Your task to perform on an android device: Show me popular games on the Play Store Image 0: 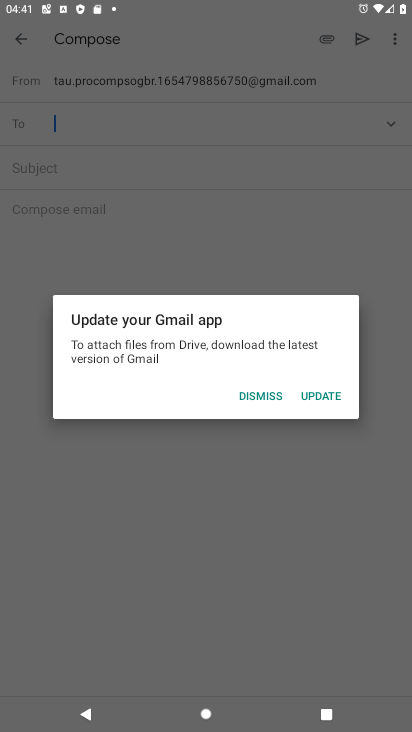
Step 0: press home button
Your task to perform on an android device: Show me popular games on the Play Store Image 1: 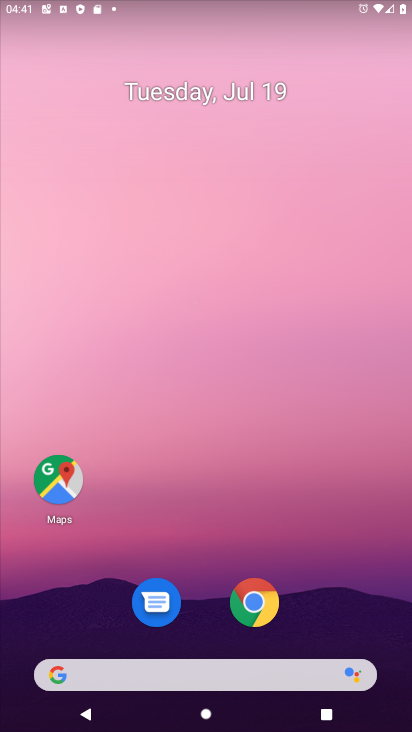
Step 1: drag from (208, 618) to (267, 159)
Your task to perform on an android device: Show me popular games on the Play Store Image 2: 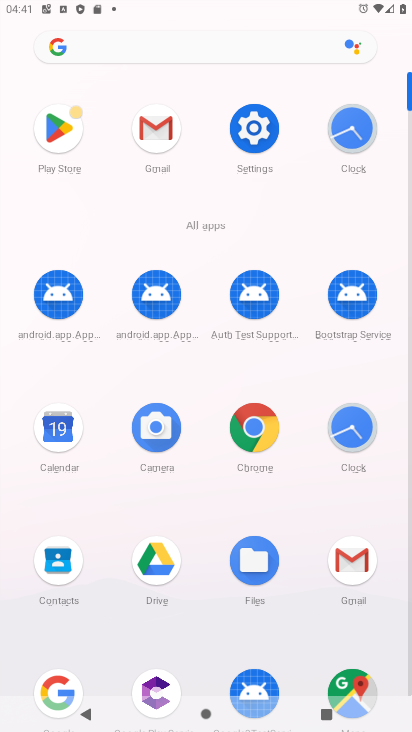
Step 2: click (81, 130)
Your task to perform on an android device: Show me popular games on the Play Store Image 3: 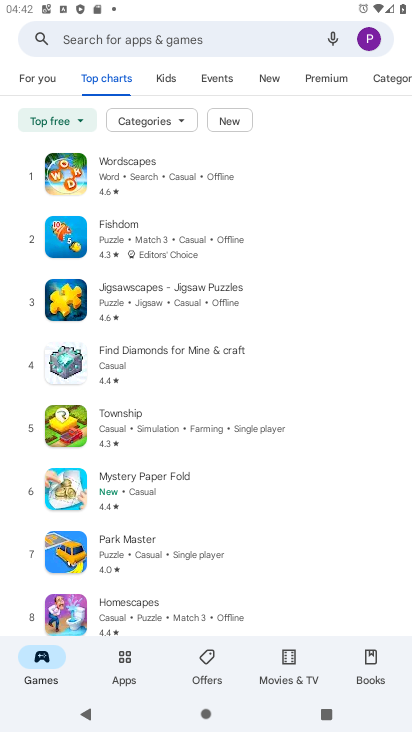
Step 3: task complete